Your task to perform on an android device: turn off priority inbox in the gmail app Image 0: 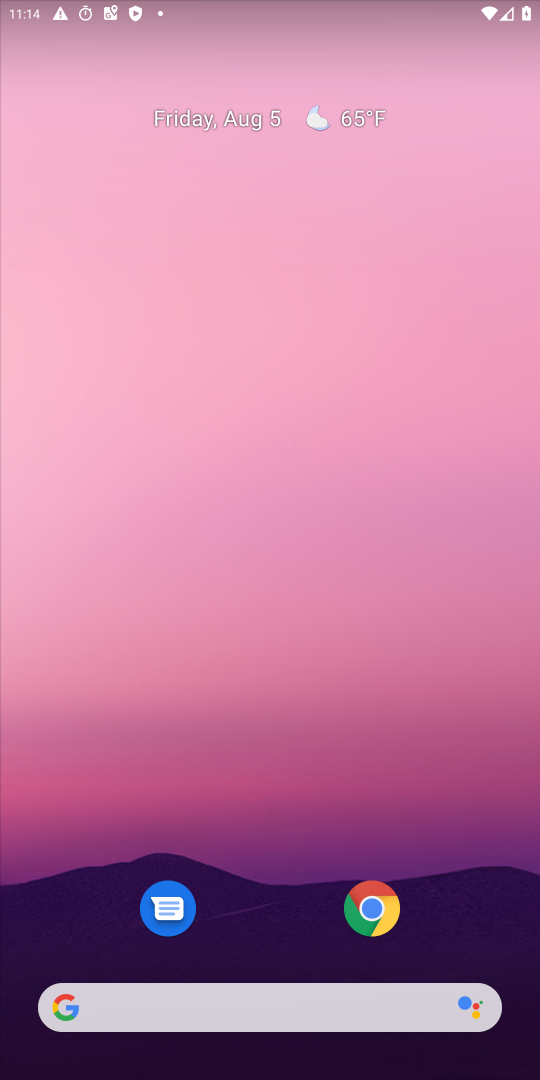
Step 0: drag from (31, 1020) to (399, 210)
Your task to perform on an android device: turn off priority inbox in the gmail app Image 1: 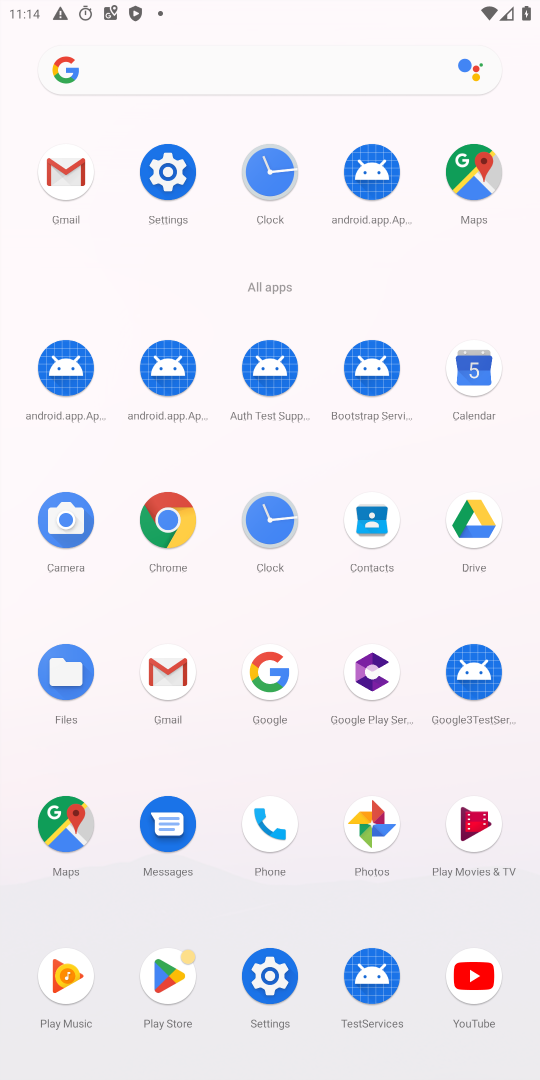
Step 1: click (158, 659)
Your task to perform on an android device: turn off priority inbox in the gmail app Image 2: 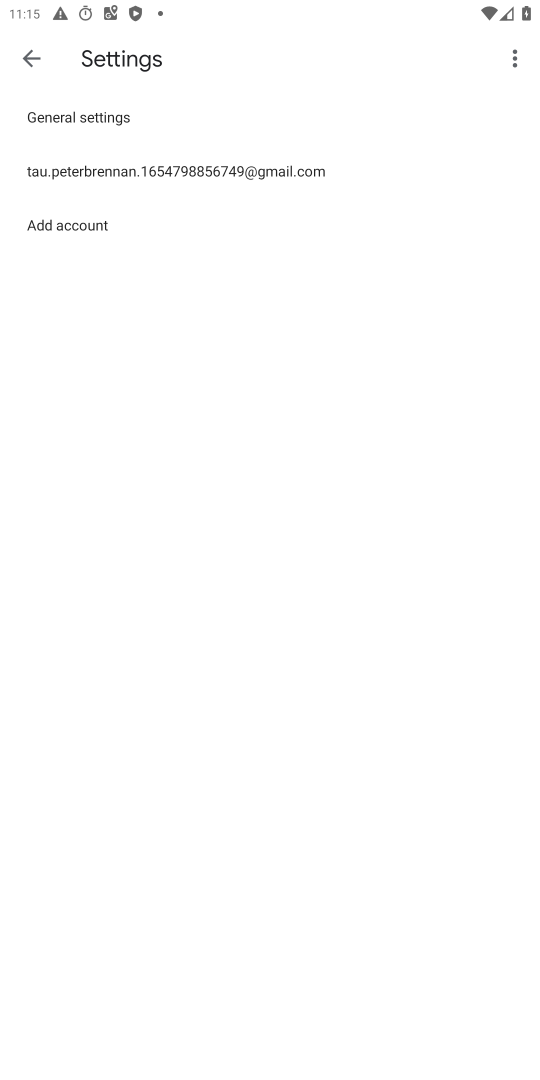
Step 2: click (122, 120)
Your task to perform on an android device: turn off priority inbox in the gmail app Image 3: 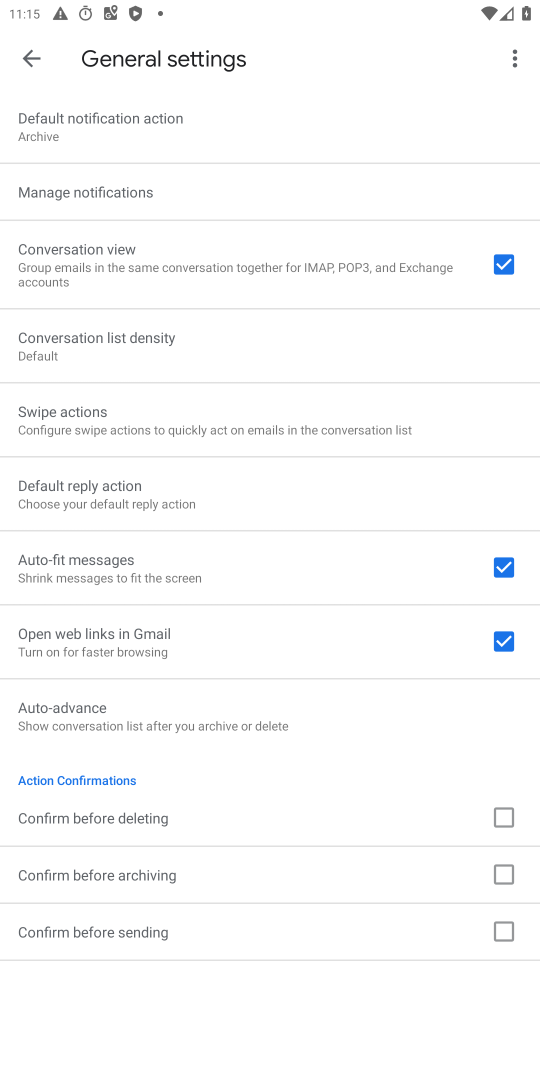
Step 3: click (34, 66)
Your task to perform on an android device: turn off priority inbox in the gmail app Image 4: 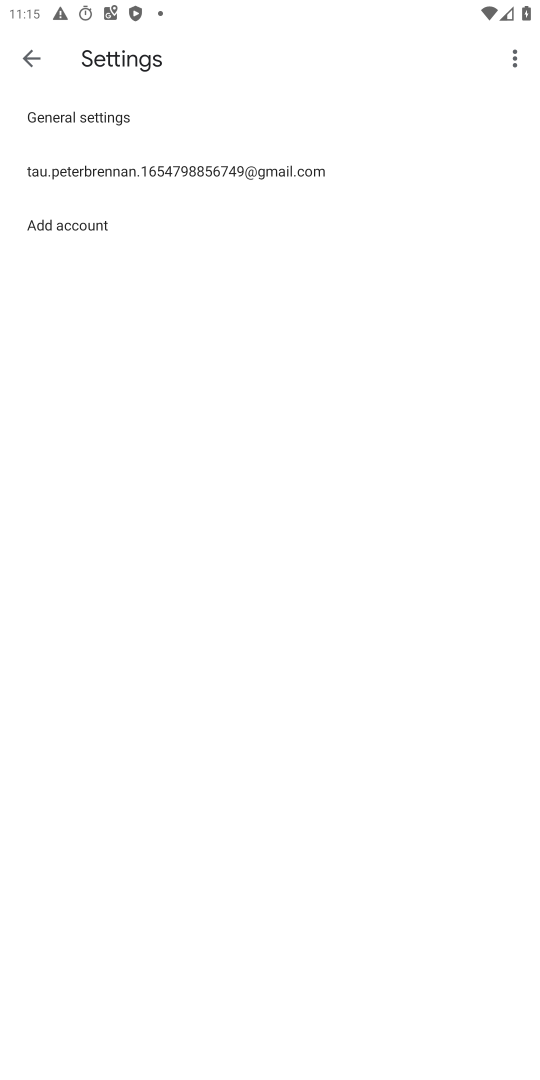
Step 4: click (86, 173)
Your task to perform on an android device: turn off priority inbox in the gmail app Image 5: 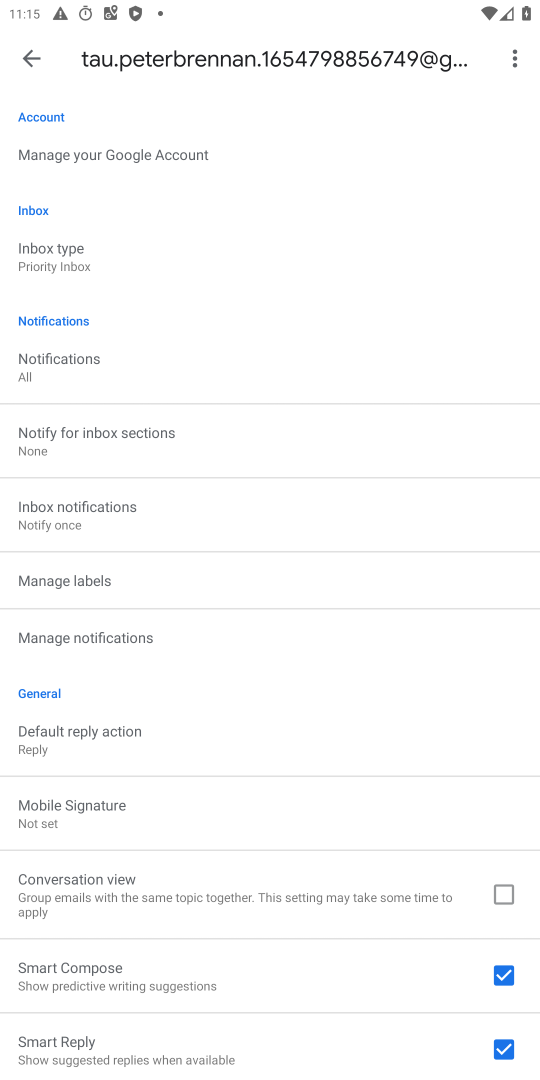
Step 5: task complete